Your task to perform on an android device: turn off location history Image 0: 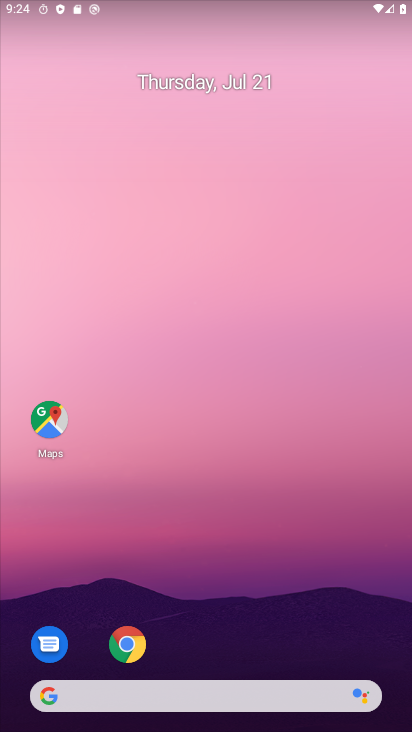
Step 0: drag from (220, 209) to (261, 159)
Your task to perform on an android device: turn off location history Image 1: 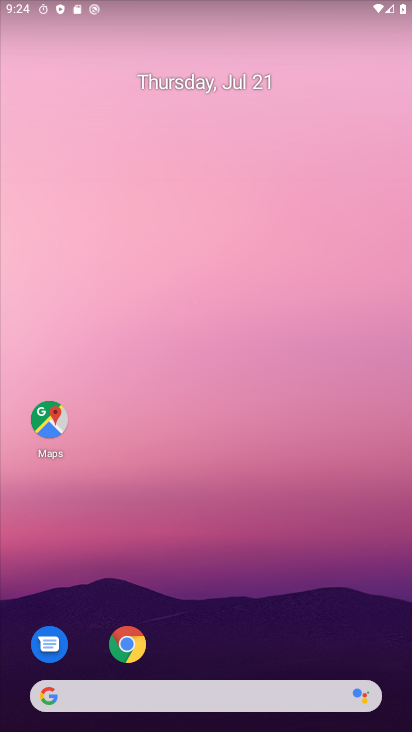
Step 1: drag from (235, 545) to (182, 127)
Your task to perform on an android device: turn off location history Image 2: 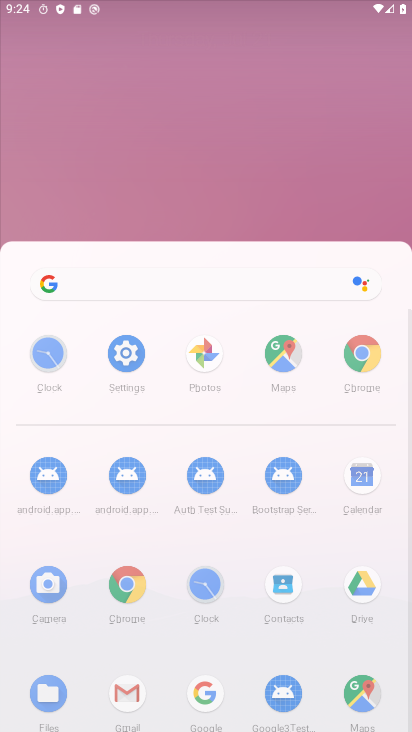
Step 2: drag from (176, 517) to (151, 57)
Your task to perform on an android device: turn off location history Image 3: 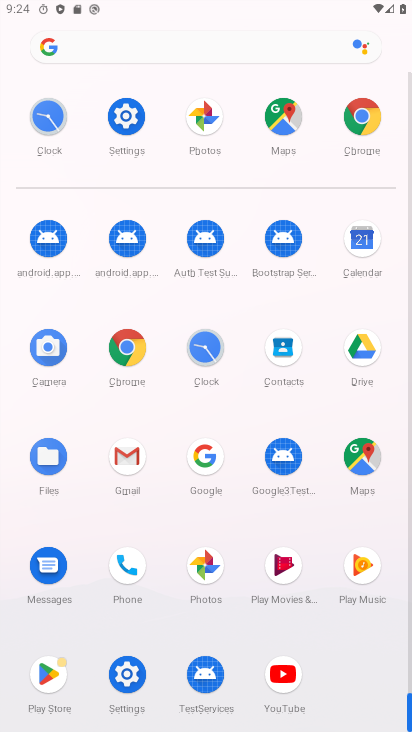
Step 3: click (127, 111)
Your task to perform on an android device: turn off location history Image 4: 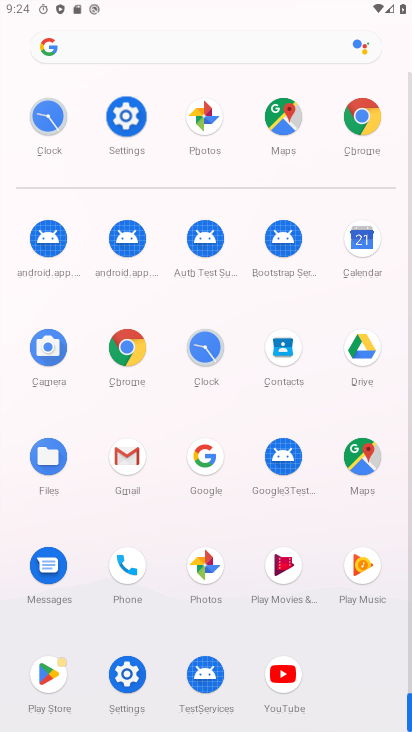
Step 4: click (126, 111)
Your task to perform on an android device: turn off location history Image 5: 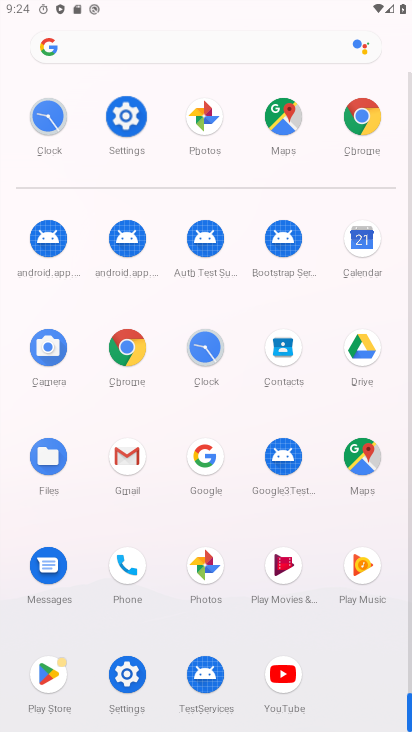
Step 5: click (125, 110)
Your task to perform on an android device: turn off location history Image 6: 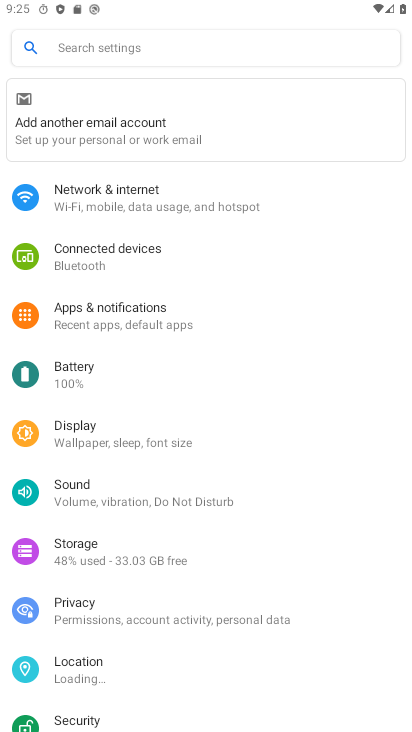
Step 6: drag from (160, 639) to (157, 204)
Your task to perform on an android device: turn off location history Image 7: 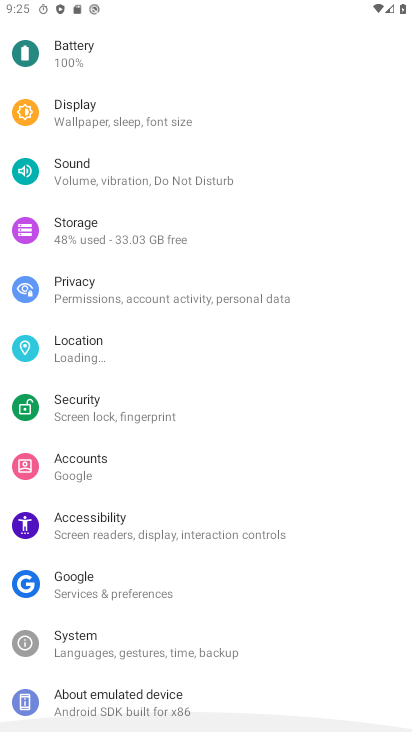
Step 7: drag from (170, 470) to (222, 194)
Your task to perform on an android device: turn off location history Image 8: 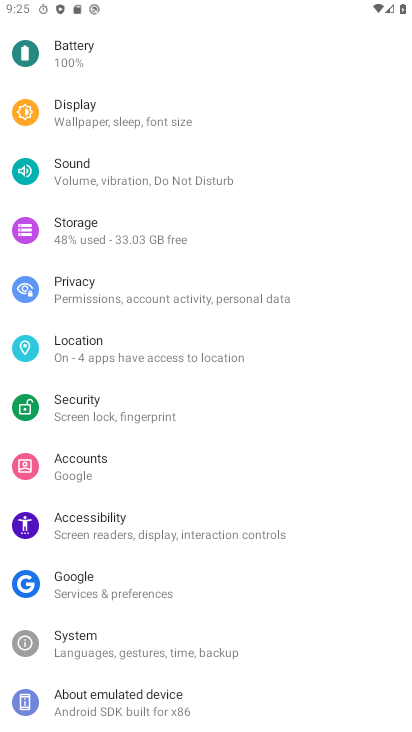
Step 8: click (76, 361)
Your task to perform on an android device: turn off location history Image 9: 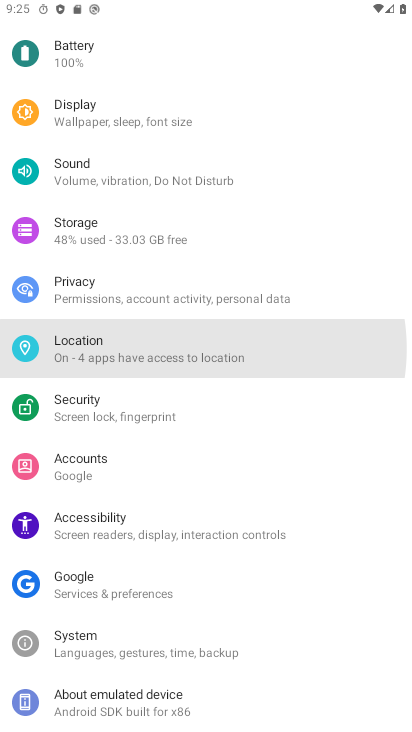
Step 9: click (80, 351)
Your task to perform on an android device: turn off location history Image 10: 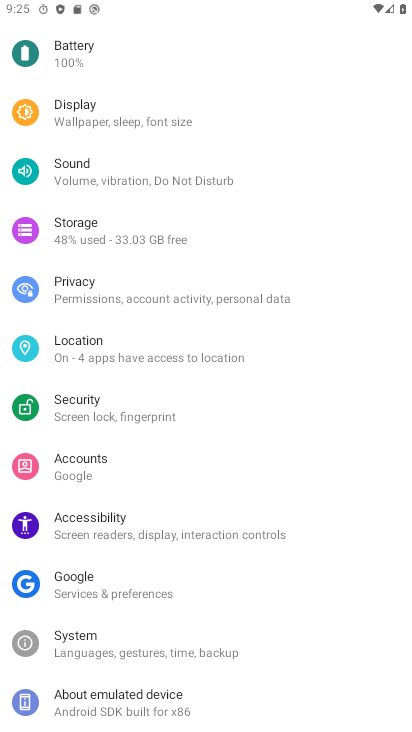
Step 10: click (80, 351)
Your task to perform on an android device: turn off location history Image 11: 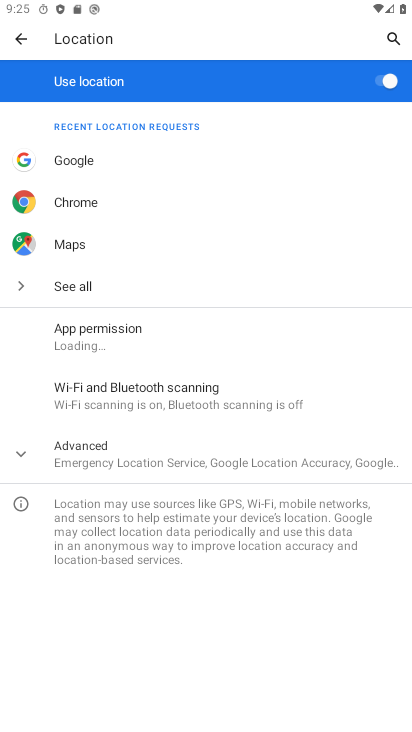
Step 11: click (82, 451)
Your task to perform on an android device: turn off location history Image 12: 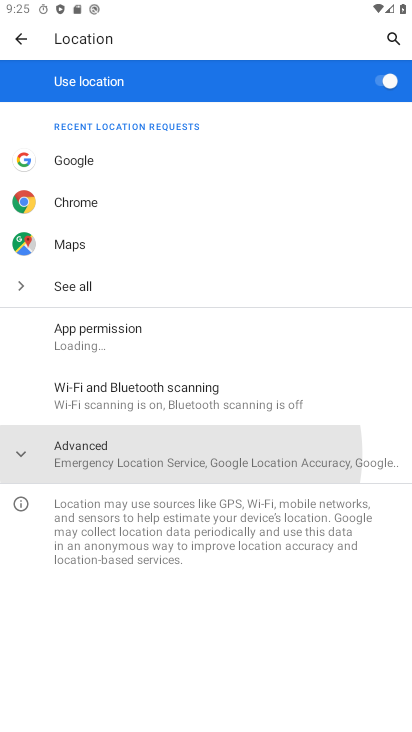
Step 12: click (82, 451)
Your task to perform on an android device: turn off location history Image 13: 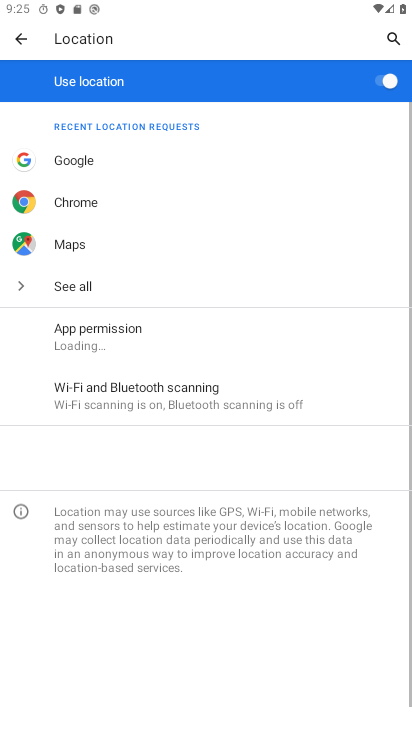
Step 13: click (82, 451)
Your task to perform on an android device: turn off location history Image 14: 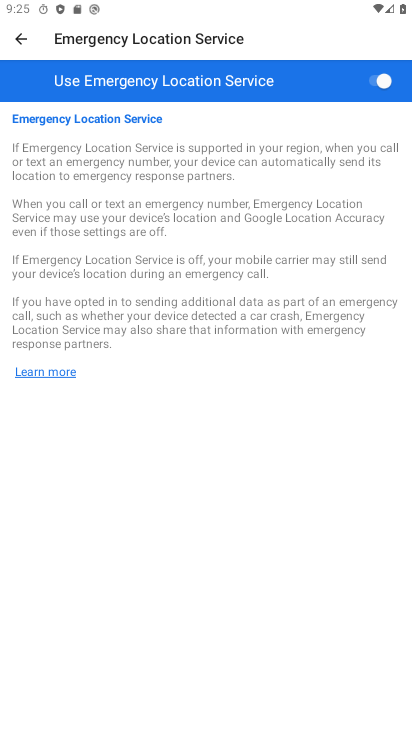
Step 14: click (25, 32)
Your task to perform on an android device: turn off location history Image 15: 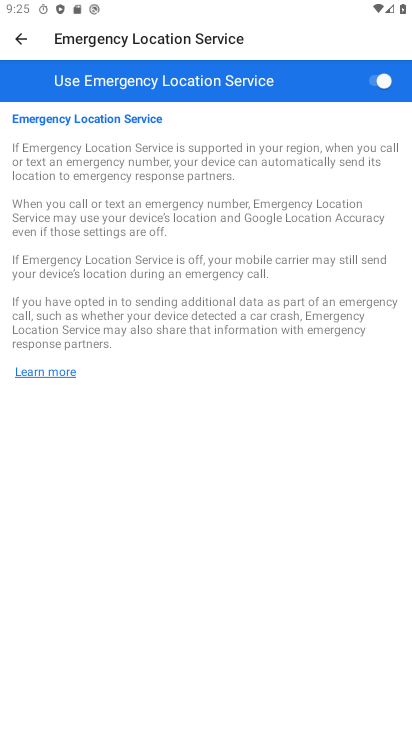
Step 15: click (24, 32)
Your task to perform on an android device: turn off location history Image 16: 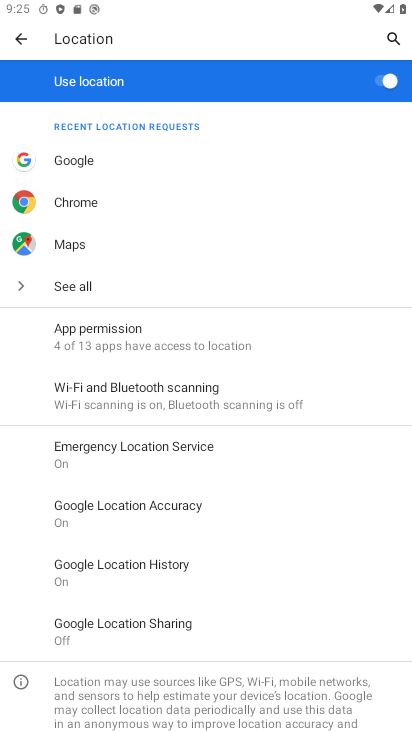
Step 16: click (124, 560)
Your task to perform on an android device: turn off location history Image 17: 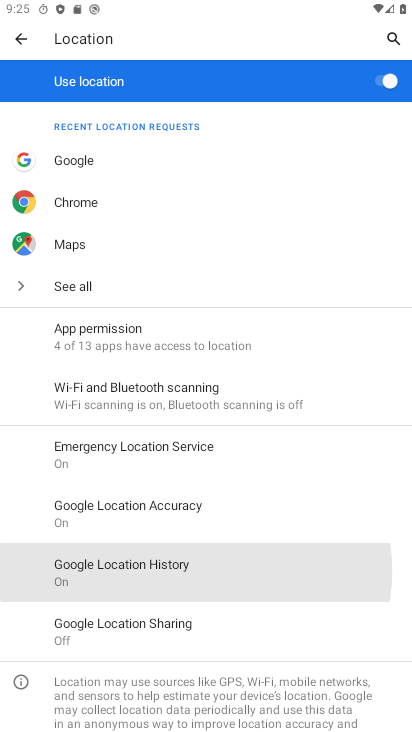
Step 17: click (124, 560)
Your task to perform on an android device: turn off location history Image 18: 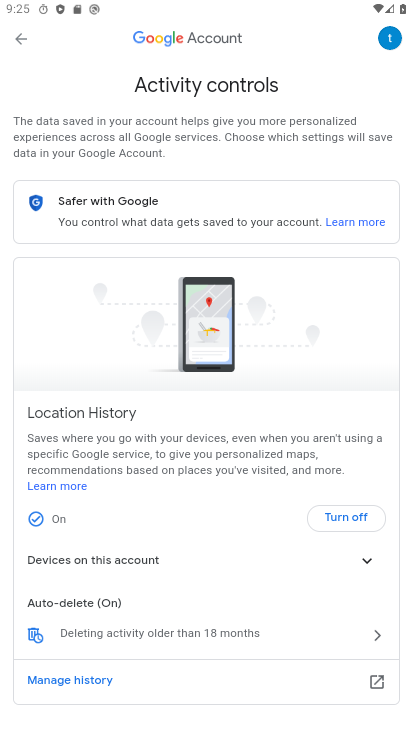
Step 18: click (34, 523)
Your task to perform on an android device: turn off location history Image 19: 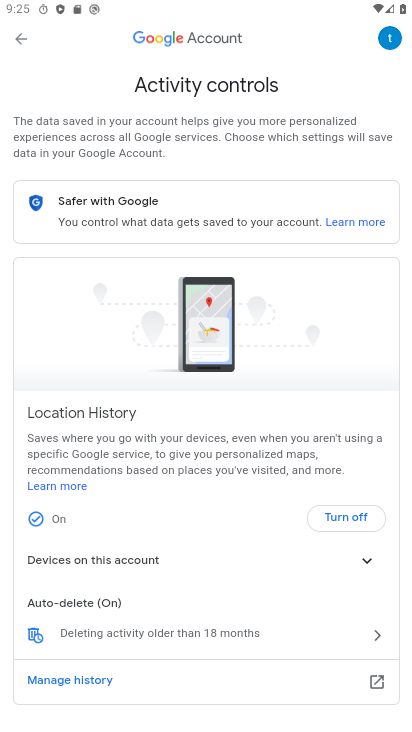
Step 19: click (34, 523)
Your task to perform on an android device: turn off location history Image 20: 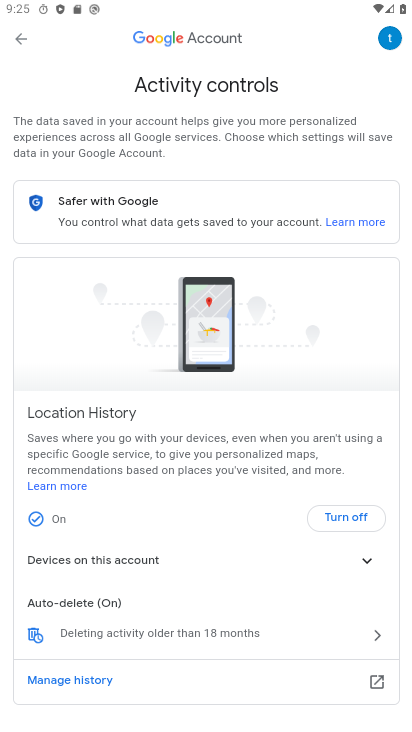
Step 20: click (320, 506)
Your task to perform on an android device: turn off location history Image 21: 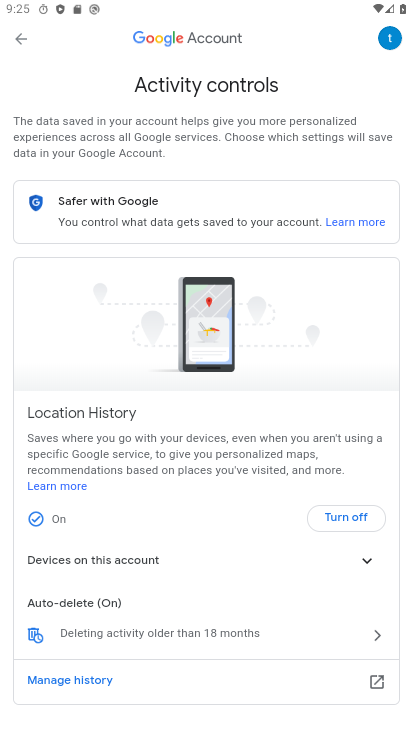
Step 21: click (329, 511)
Your task to perform on an android device: turn off location history Image 22: 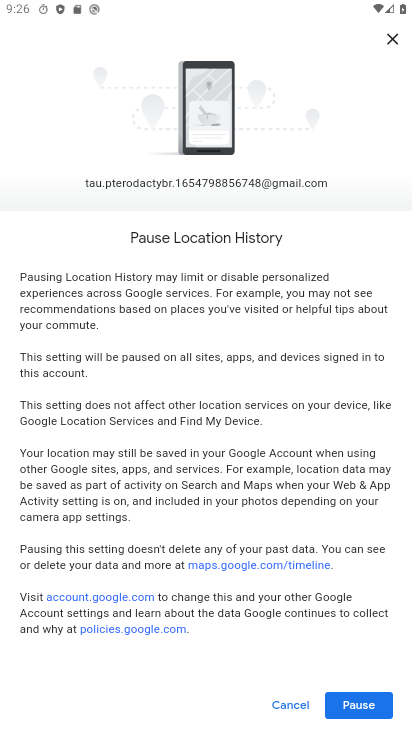
Step 22: click (350, 695)
Your task to perform on an android device: turn off location history Image 23: 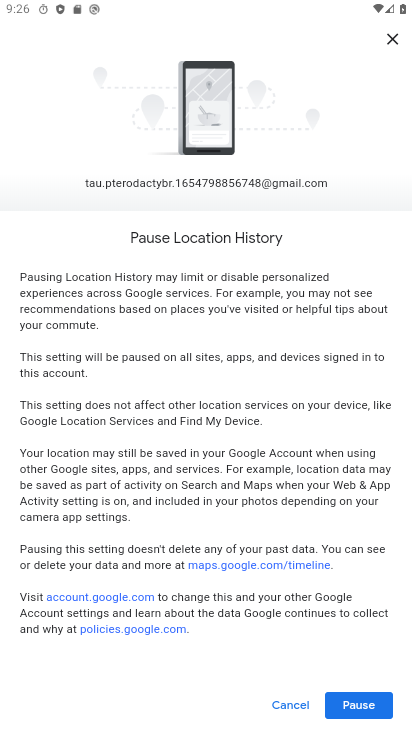
Step 23: click (351, 696)
Your task to perform on an android device: turn off location history Image 24: 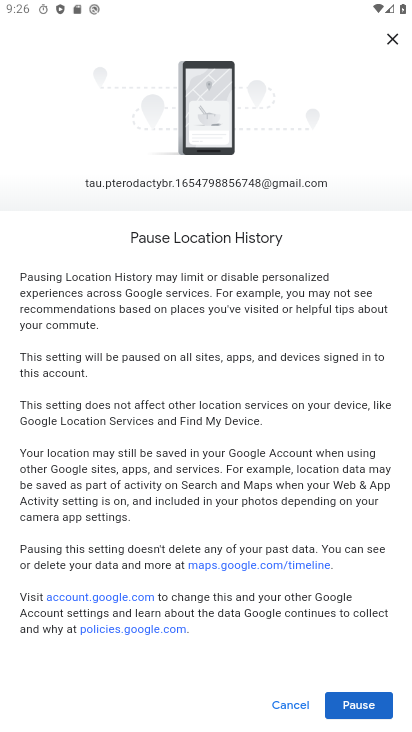
Step 24: press back button
Your task to perform on an android device: turn off location history Image 25: 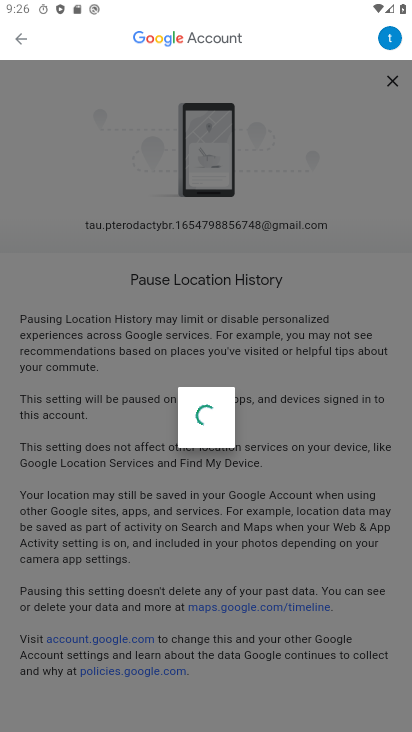
Step 25: press back button
Your task to perform on an android device: turn off location history Image 26: 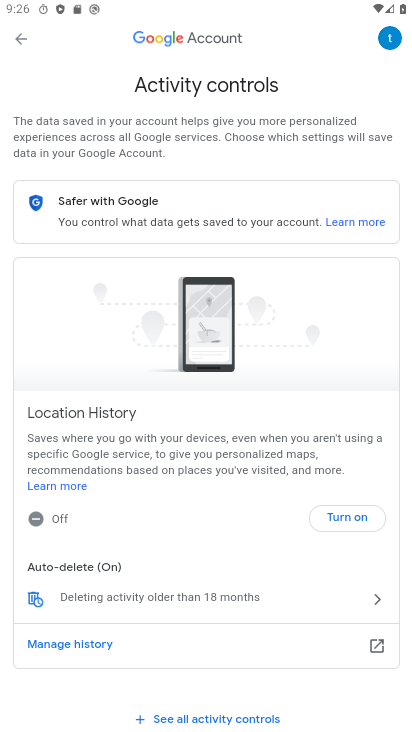
Step 26: press home button
Your task to perform on an android device: turn off location history Image 27: 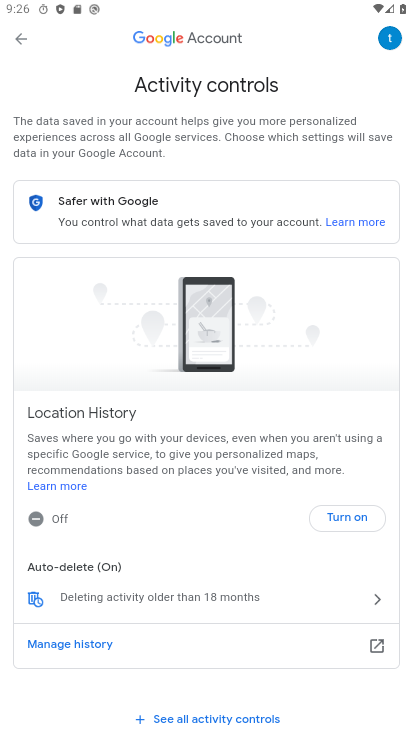
Step 27: press home button
Your task to perform on an android device: turn off location history Image 28: 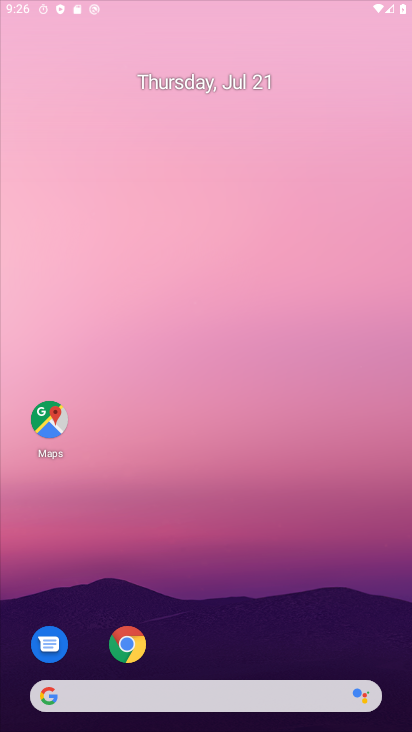
Step 28: press home button
Your task to perform on an android device: turn off location history Image 29: 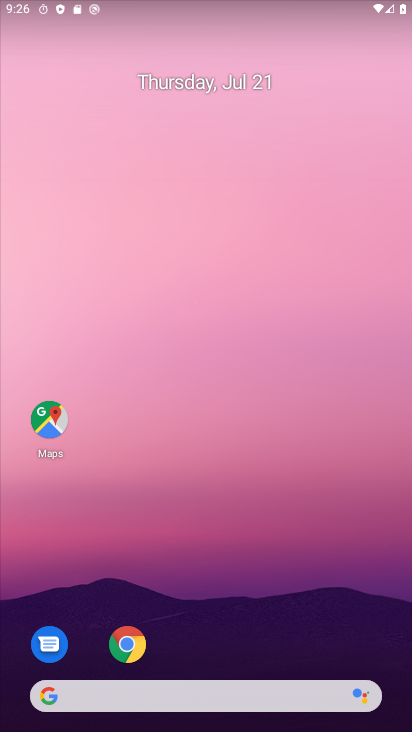
Step 29: drag from (227, 682) to (169, 35)
Your task to perform on an android device: turn off location history Image 30: 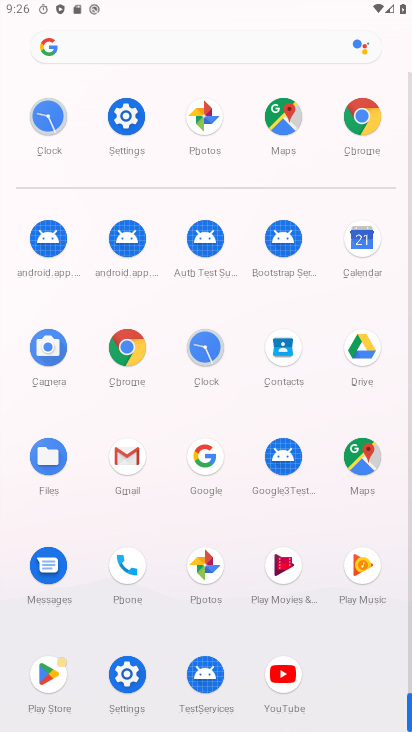
Step 30: click (129, 126)
Your task to perform on an android device: turn off location history Image 31: 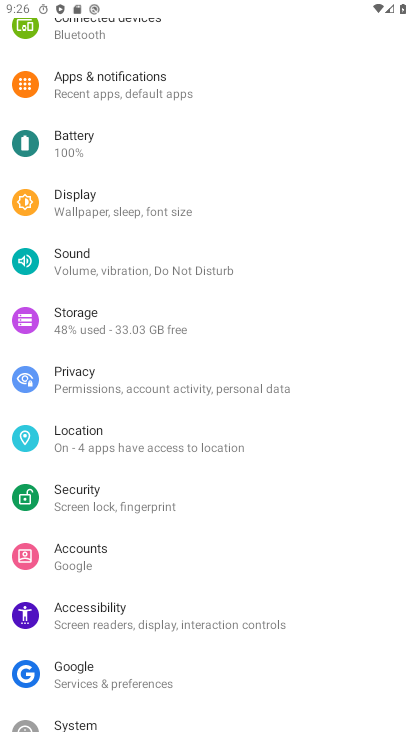
Step 31: click (93, 435)
Your task to perform on an android device: turn off location history Image 32: 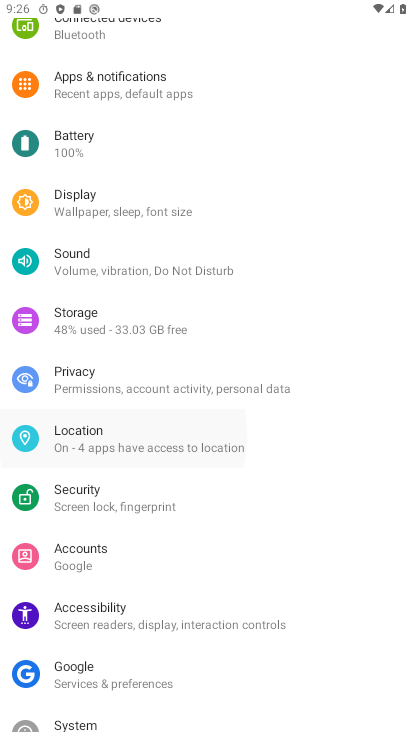
Step 32: click (95, 432)
Your task to perform on an android device: turn off location history Image 33: 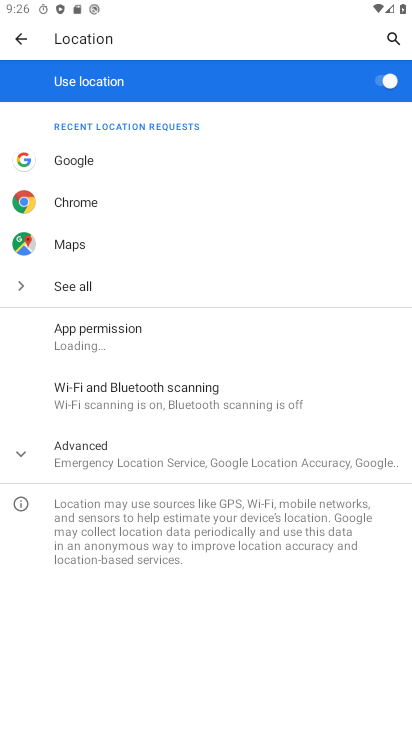
Step 33: click (124, 451)
Your task to perform on an android device: turn off location history Image 34: 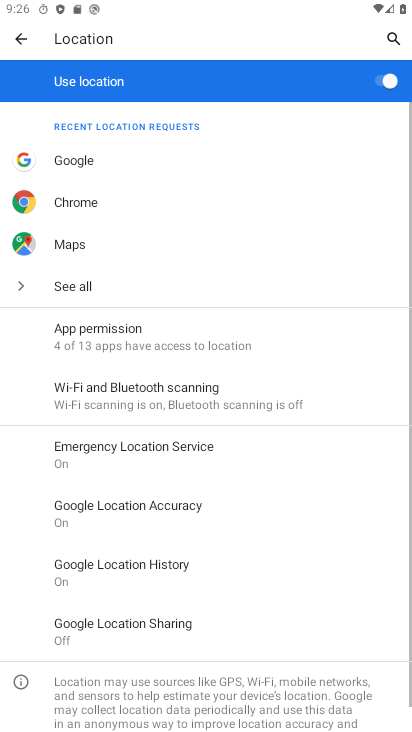
Step 34: click (101, 569)
Your task to perform on an android device: turn off location history Image 35: 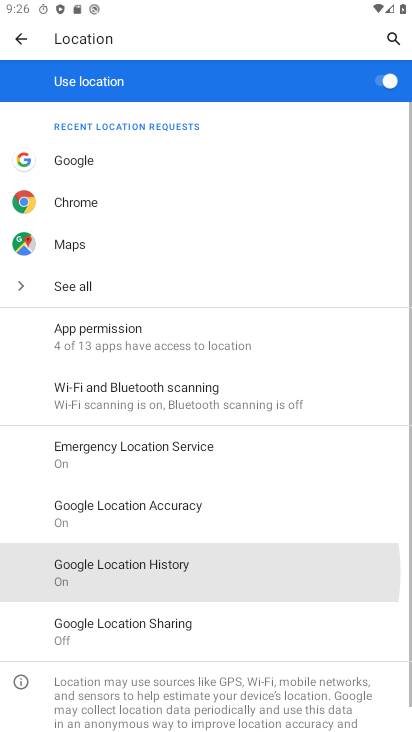
Step 35: click (106, 568)
Your task to perform on an android device: turn off location history Image 36: 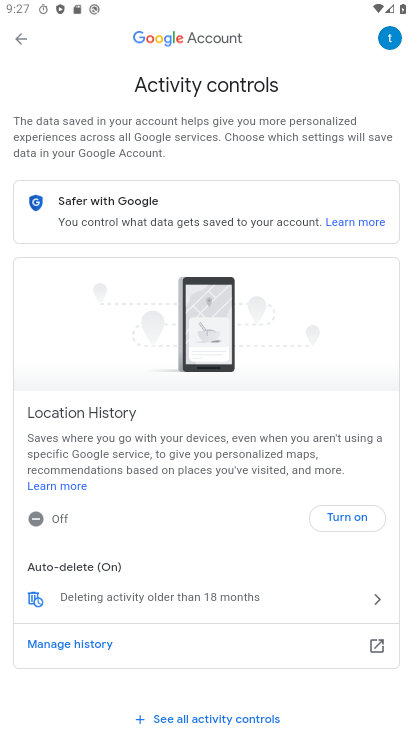
Step 36: click (349, 517)
Your task to perform on an android device: turn off location history Image 37: 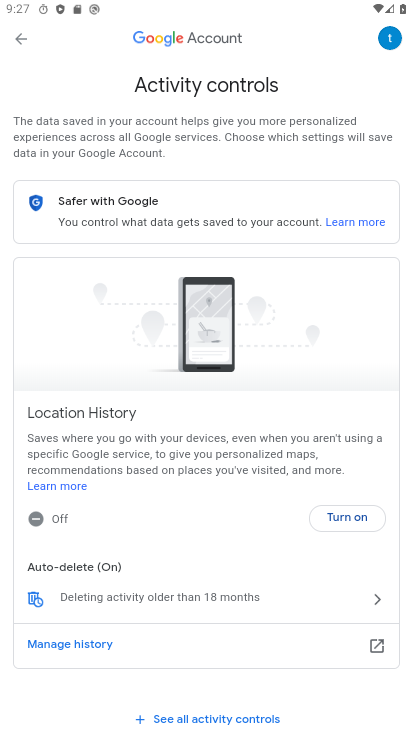
Step 37: click (353, 510)
Your task to perform on an android device: turn off location history Image 38: 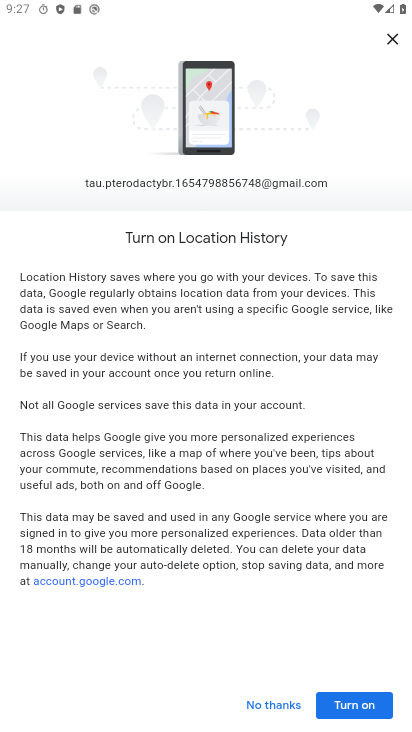
Step 38: task complete